Your task to perform on an android device: Open the map Image 0: 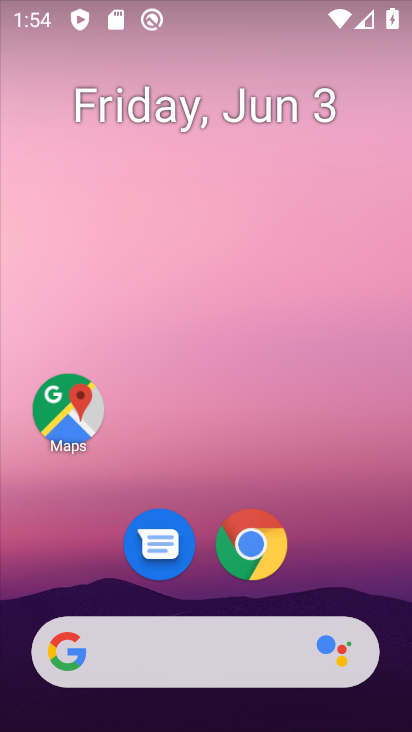
Step 0: press home button
Your task to perform on an android device: Open the map Image 1: 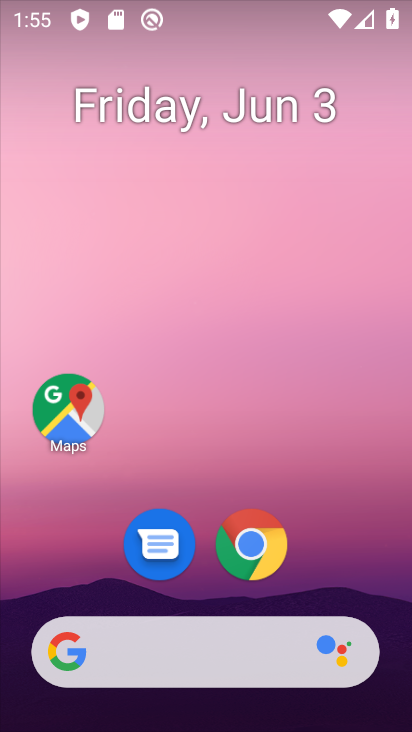
Step 1: drag from (370, 554) to (315, 81)
Your task to perform on an android device: Open the map Image 2: 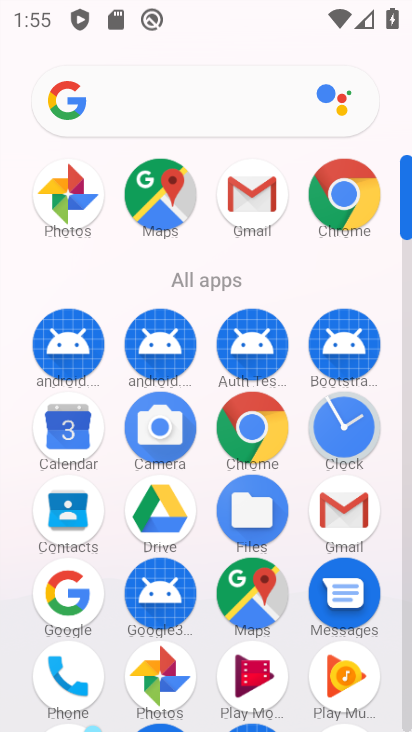
Step 2: click (279, 595)
Your task to perform on an android device: Open the map Image 3: 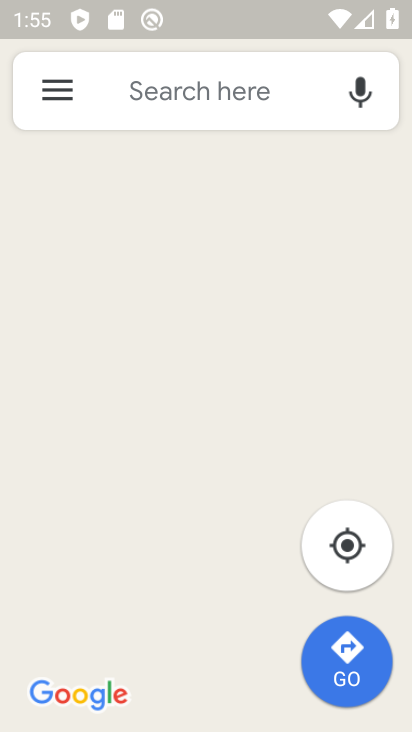
Step 3: click (188, 98)
Your task to perform on an android device: Open the map Image 4: 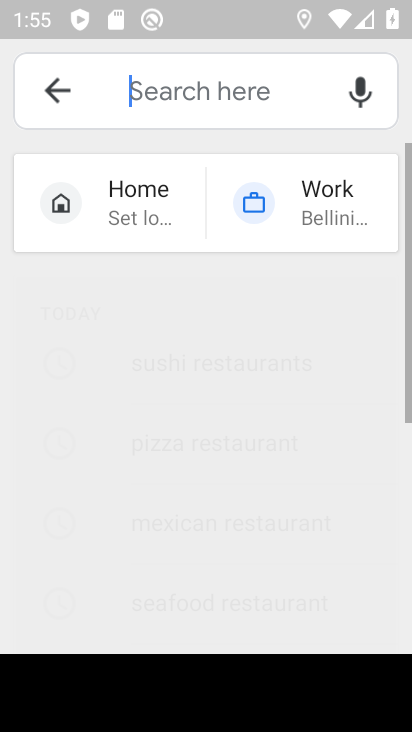
Step 4: task complete